Your task to perform on an android device: Go to Wikipedia Image 0: 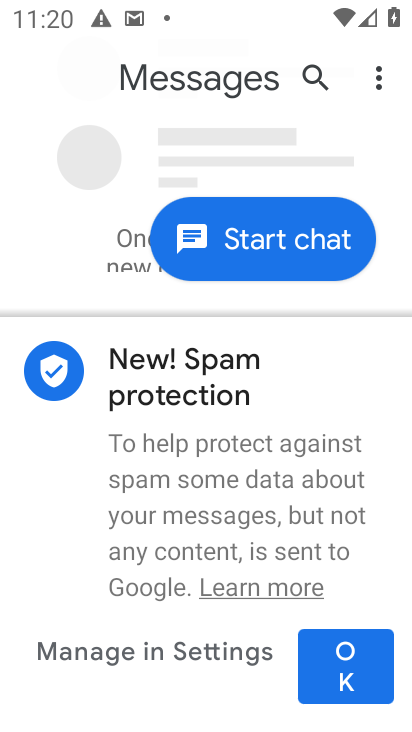
Step 0: press home button
Your task to perform on an android device: Go to Wikipedia Image 1: 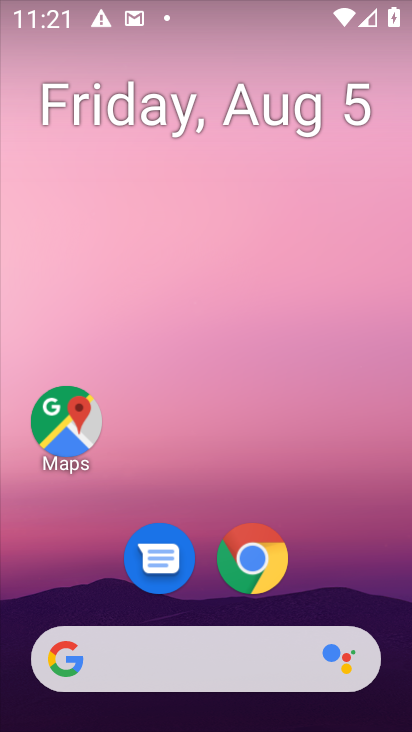
Step 1: drag from (339, 550) to (363, 164)
Your task to perform on an android device: Go to Wikipedia Image 2: 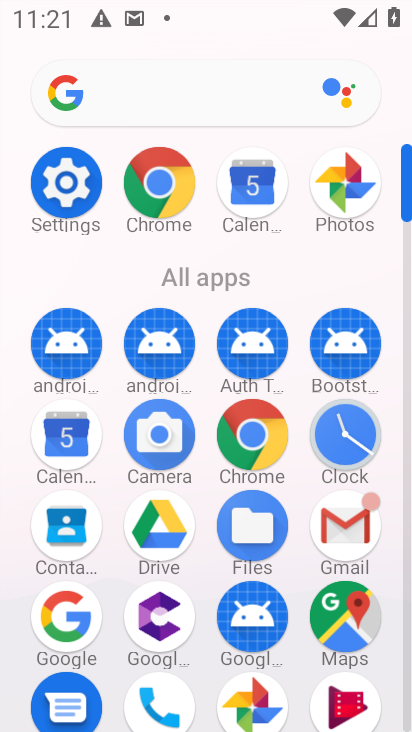
Step 2: click (237, 436)
Your task to perform on an android device: Go to Wikipedia Image 3: 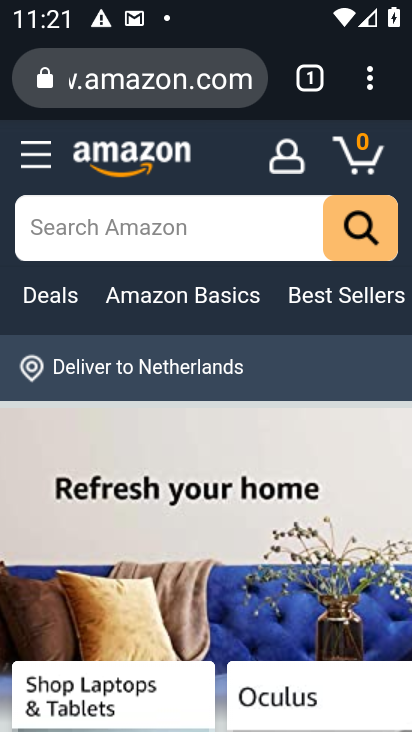
Step 3: click (220, 75)
Your task to perform on an android device: Go to Wikipedia Image 4: 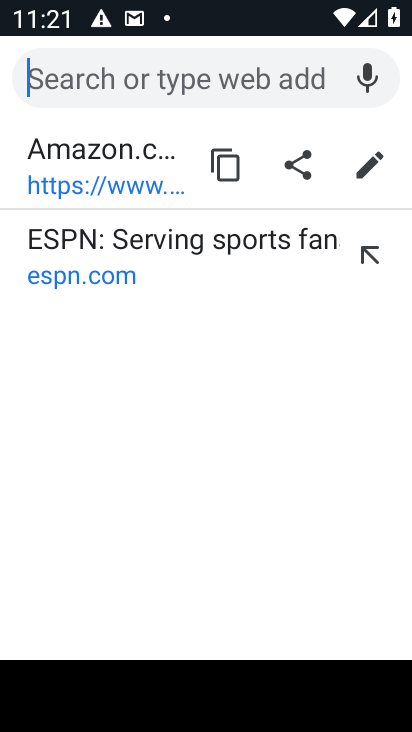
Step 4: type "wikipedza"
Your task to perform on an android device: Go to Wikipedia Image 5: 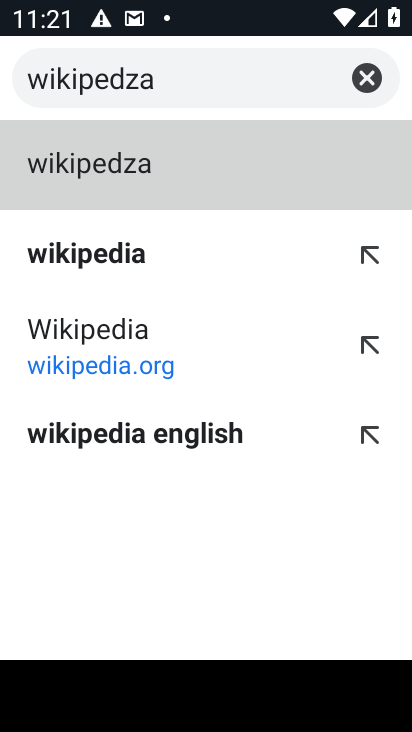
Step 5: click (182, 261)
Your task to perform on an android device: Go to Wikipedia Image 6: 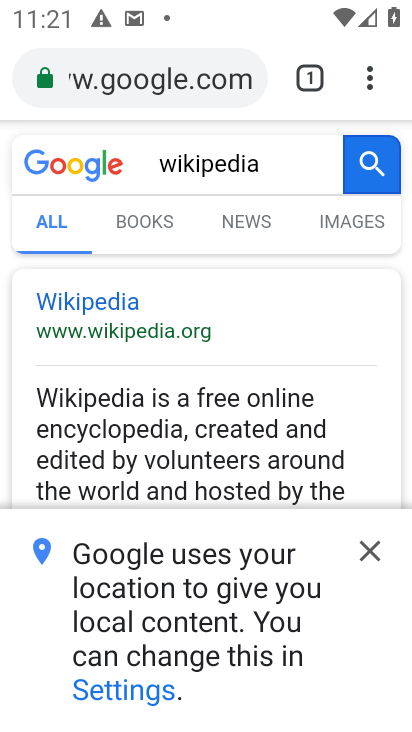
Step 6: task complete